Your task to perform on an android device: Go to sound settings Image 0: 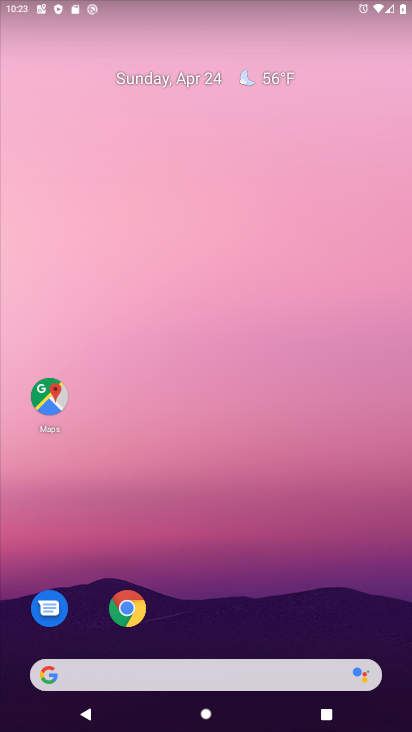
Step 0: drag from (203, 642) to (356, 32)
Your task to perform on an android device: Go to sound settings Image 1: 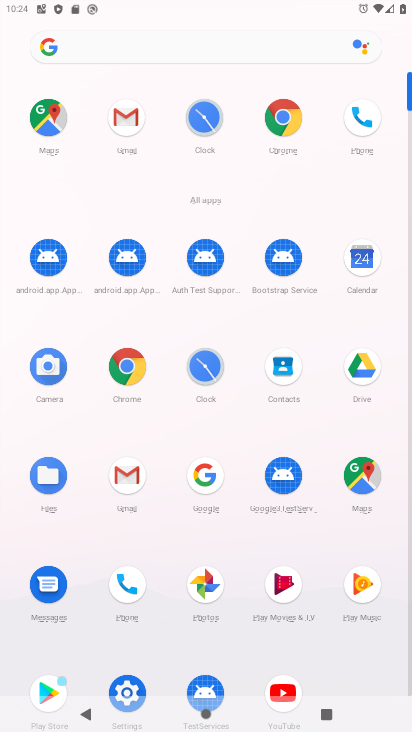
Step 1: click (117, 679)
Your task to perform on an android device: Go to sound settings Image 2: 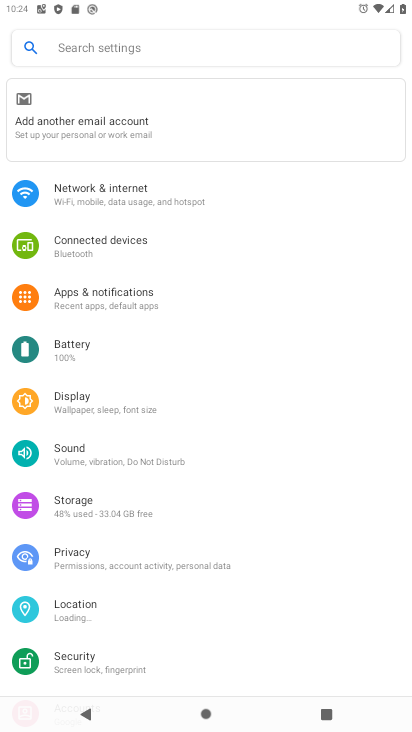
Step 2: click (85, 450)
Your task to perform on an android device: Go to sound settings Image 3: 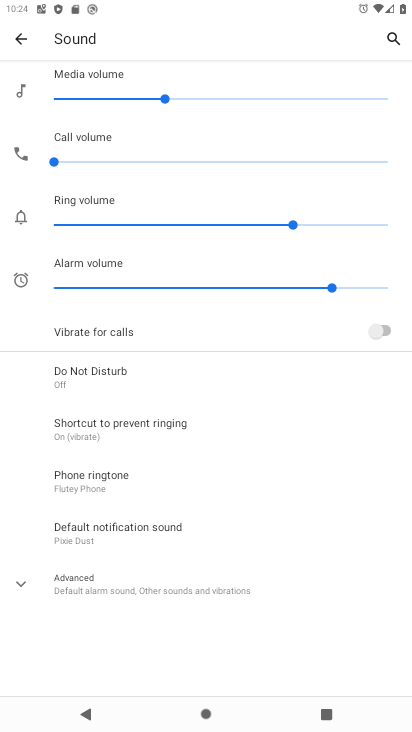
Step 3: click (79, 573)
Your task to perform on an android device: Go to sound settings Image 4: 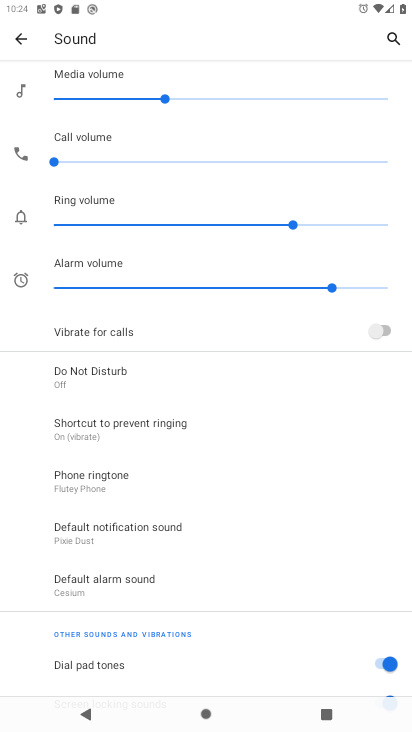
Step 4: task complete